Your task to perform on an android device: Go to eBay Image 0: 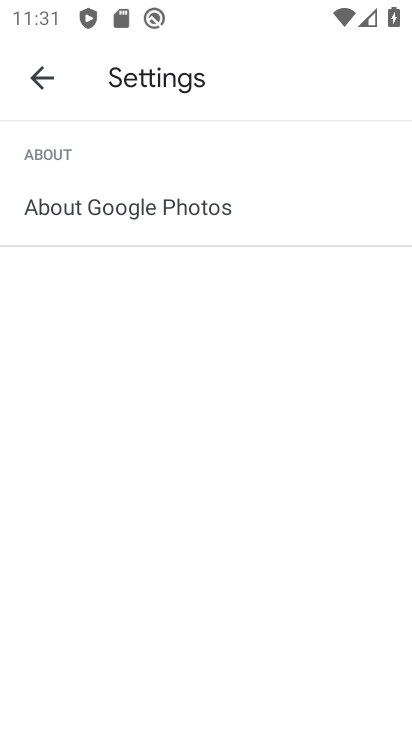
Step 0: press home button
Your task to perform on an android device: Go to eBay Image 1: 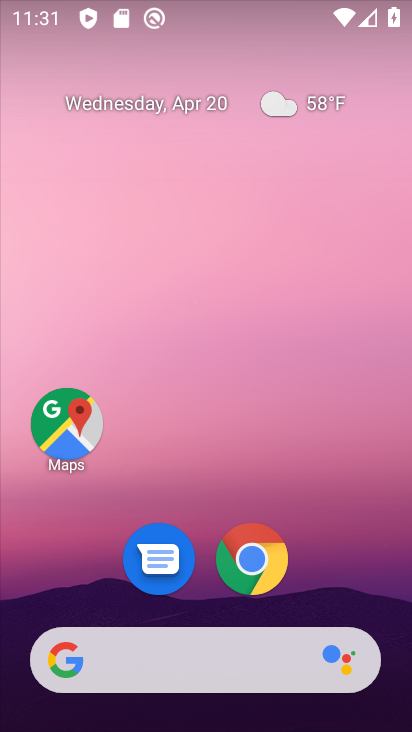
Step 1: click (251, 555)
Your task to perform on an android device: Go to eBay Image 2: 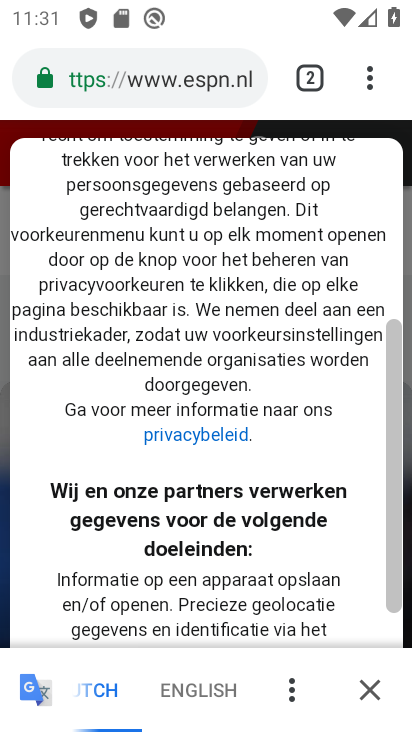
Step 2: click (323, 74)
Your task to perform on an android device: Go to eBay Image 3: 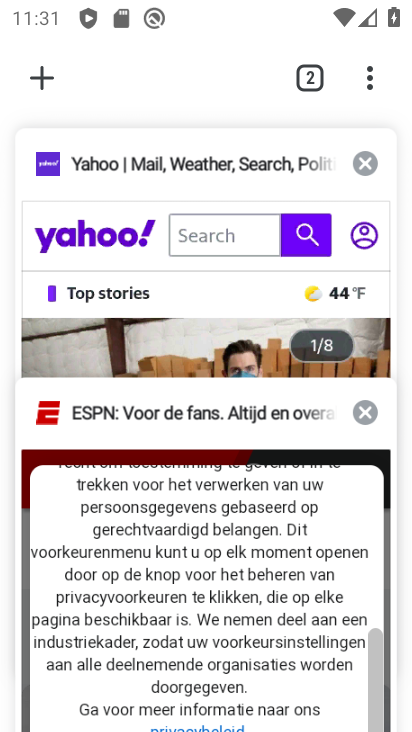
Step 3: click (36, 72)
Your task to perform on an android device: Go to eBay Image 4: 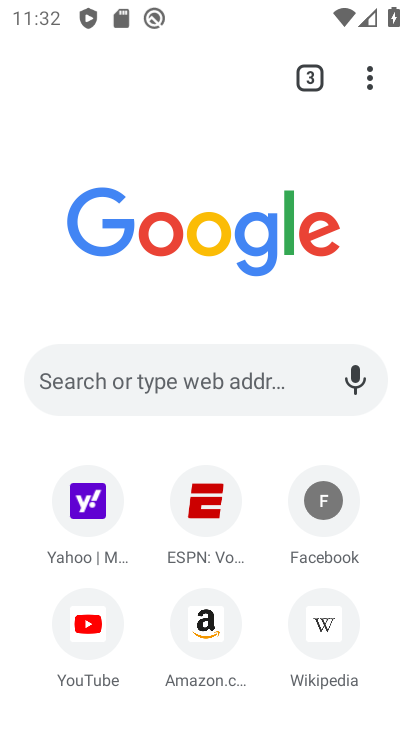
Step 4: click (201, 366)
Your task to perform on an android device: Go to eBay Image 5: 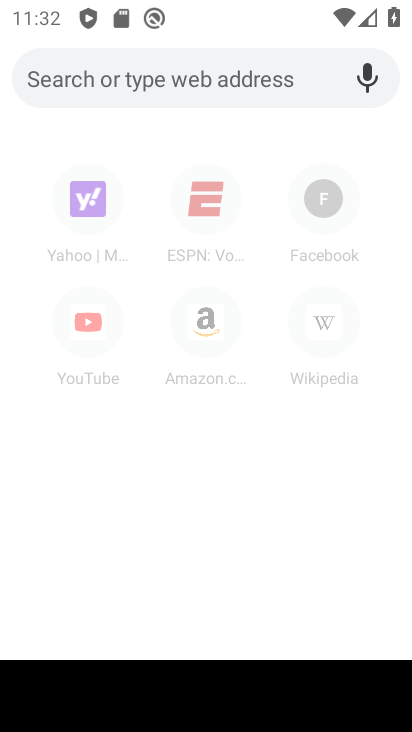
Step 5: type "eBay"
Your task to perform on an android device: Go to eBay Image 6: 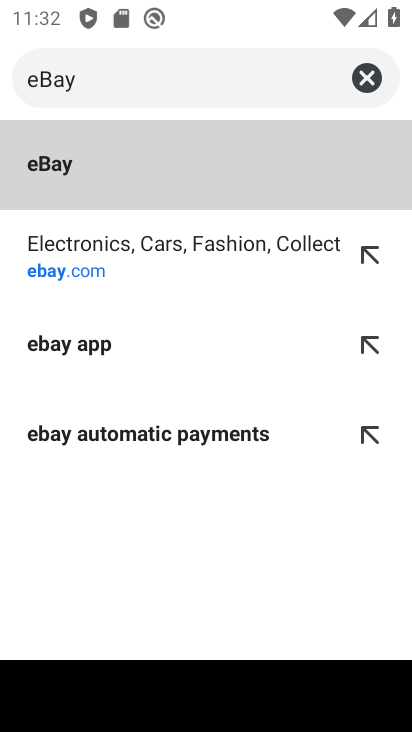
Step 6: click (82, 241)
Your task to perform on an android device: Go to eBay Image 7: 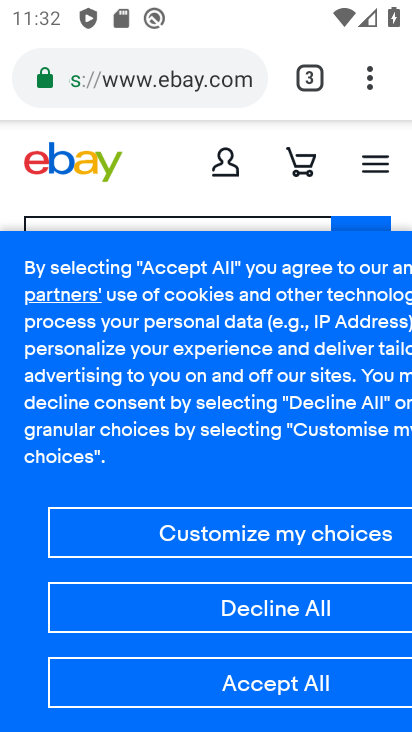
Step 7: task complete